Your task to perform on an android device: turn on airplane mode Image 0: 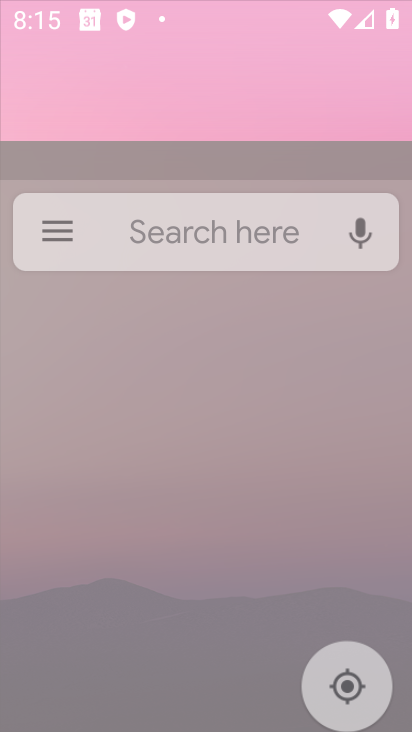
Step 0: drag from (311, 522) to (317, 6)
Your task to perform on an android device: turn on airplane mode Image 1: 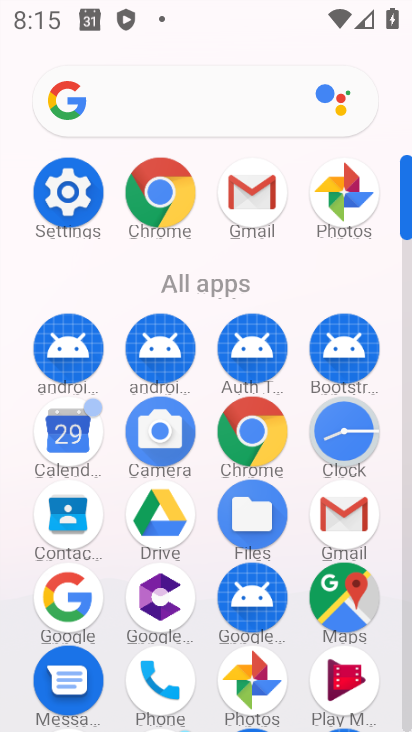
Step 1: click (51, 196)
Your task to perform on an android device: turn on airplane mode Image 2: 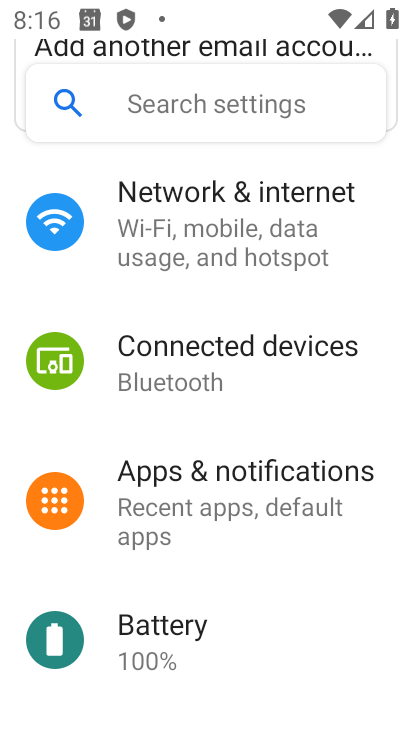
Step 2: click (188, 219)
Your task to perform on an android device: turn on airplane mode Image 3: 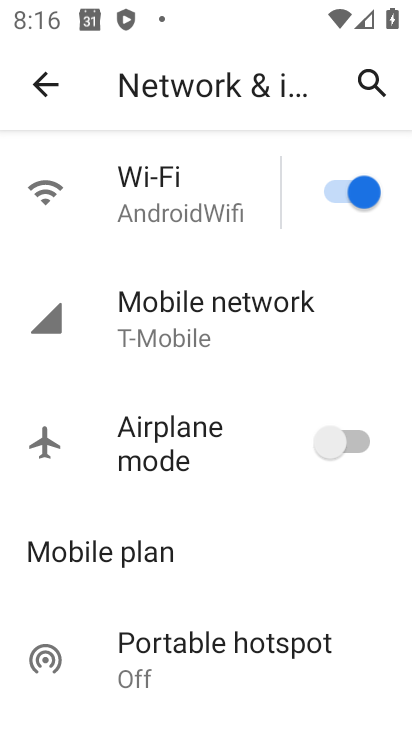
Step 3: click (349, 453)
Your task to perform on an android device: turn on airplane mode Image 4: 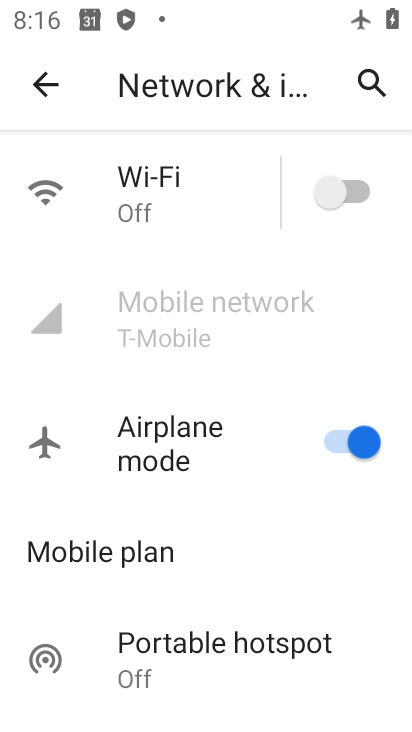
Step 4: task complete